Your task to perform on an android device: Go to Maps Image 0: 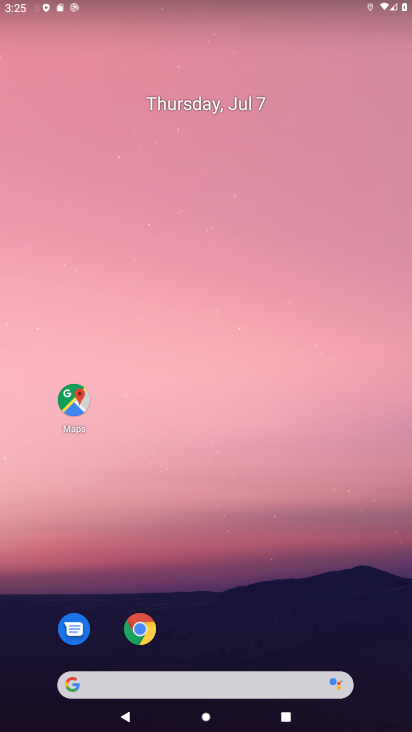
Step 0: click (70, 408)
Your task to perform on an android device: Go to Maps Image 1: 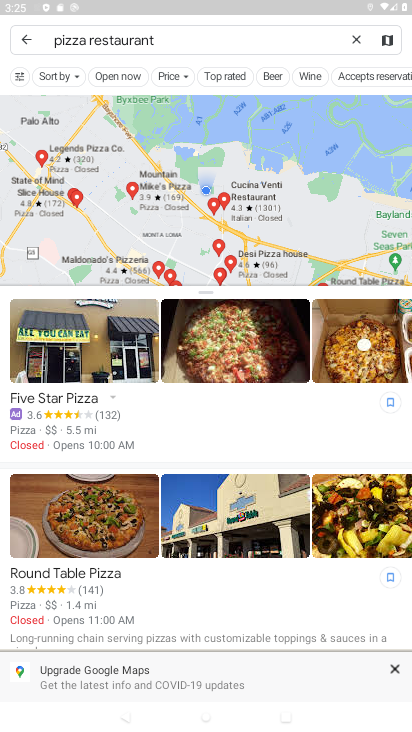
Step 1: click (358, 39)
Your task to perform on an android device: Go to Maps Image 2: 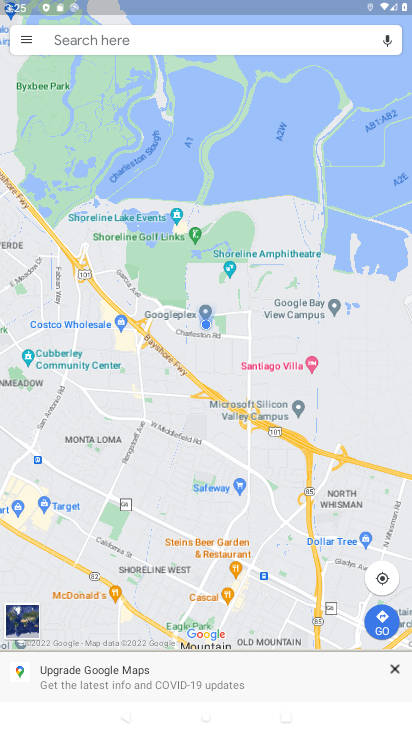
Step 2: task complete